Your task to perform on an android device: Go to location settings Image 0: 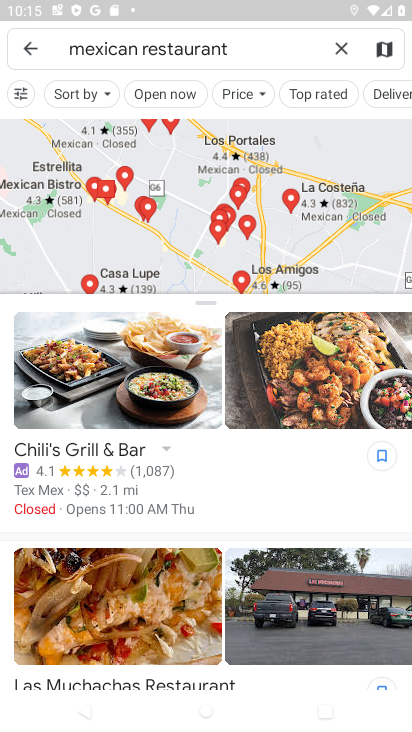
Step 0: press home button
Your task to perform on an android device: Go to location settings Image 1: 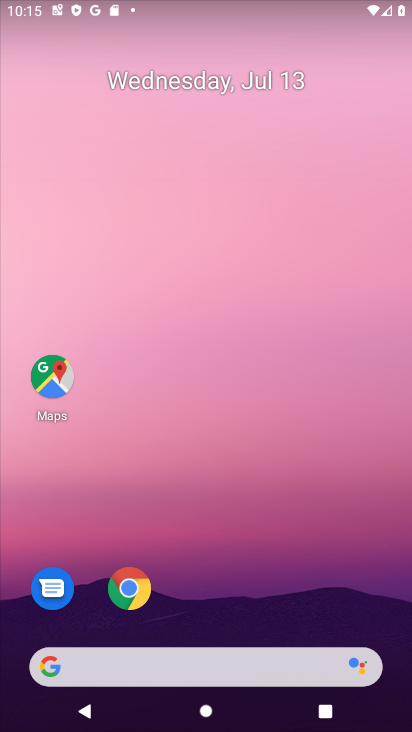
Step 1: drag from (228, 633) to (223, 70)
Your task to perform on an android device: Go to location settings Image 2: 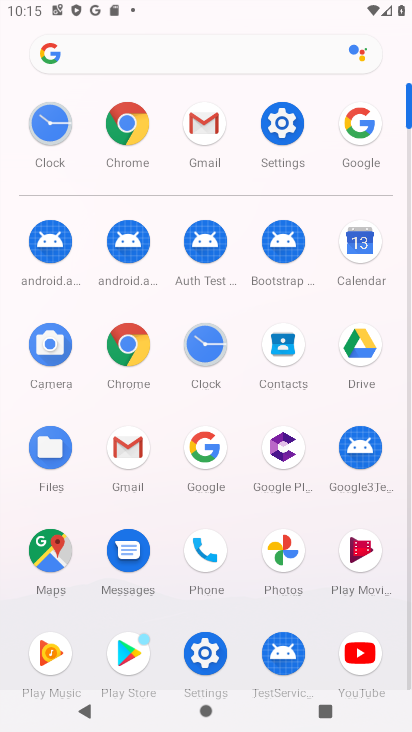
Step 2: click (280, 120)
Your task to perform on an android device: Go to location settings Image 3: 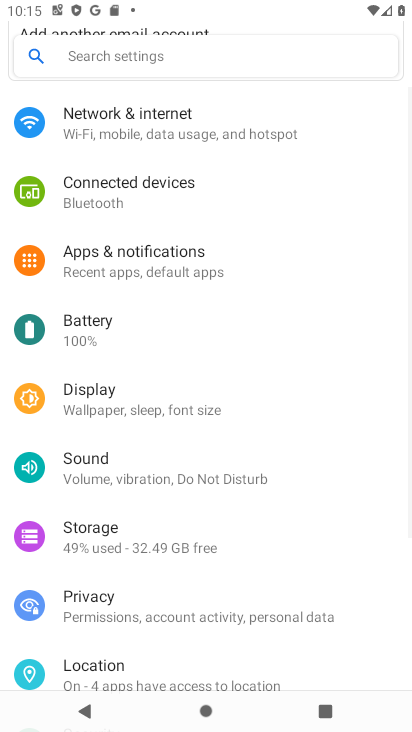
Step 3: drag from (171, 661) to (187, 454)
Your task to perform on an android device: Go to location settings Image 4: 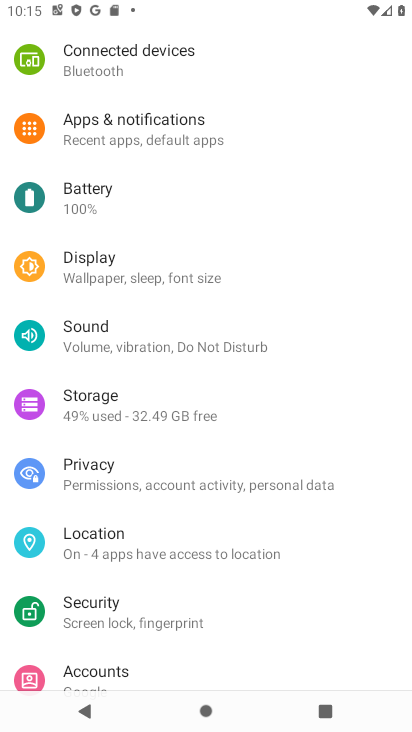
Step 4: click (127, 532)
Your task to perform on an android device: Go to location settings Image 5: 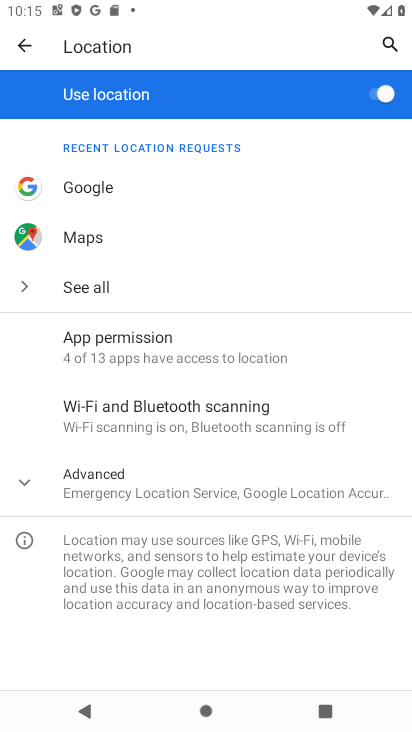
Step 5: task complete